Your task to perform on an android device: Empty the shopping cart on bestbuy. Add "acer predator" to the cart on bestbuy, then select checkout. Image 0: 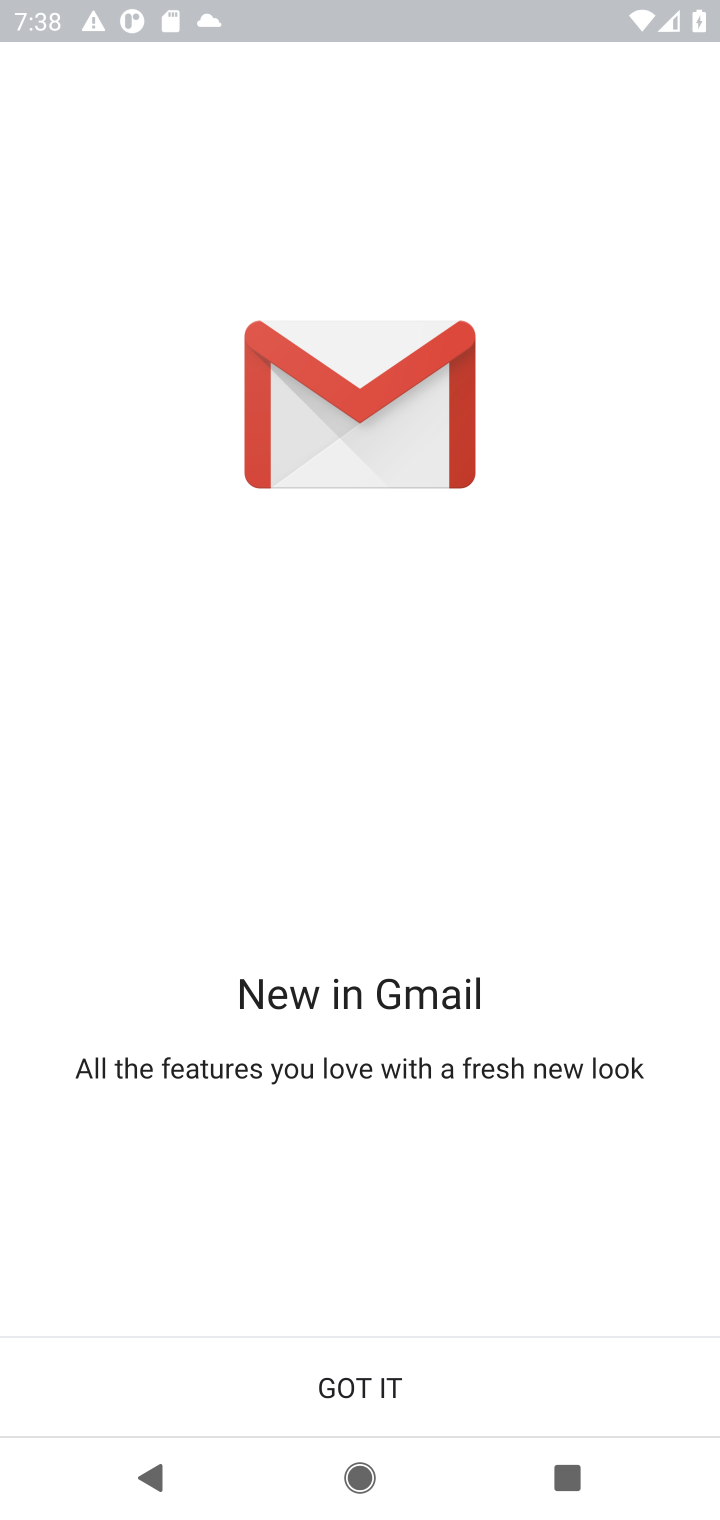
Step 0: press home button
Your task to perform on an android device: Empty the shopping cart on bestbuy. Add "acer predator" to the cart on bestbuy, then select checkout. Image 1: 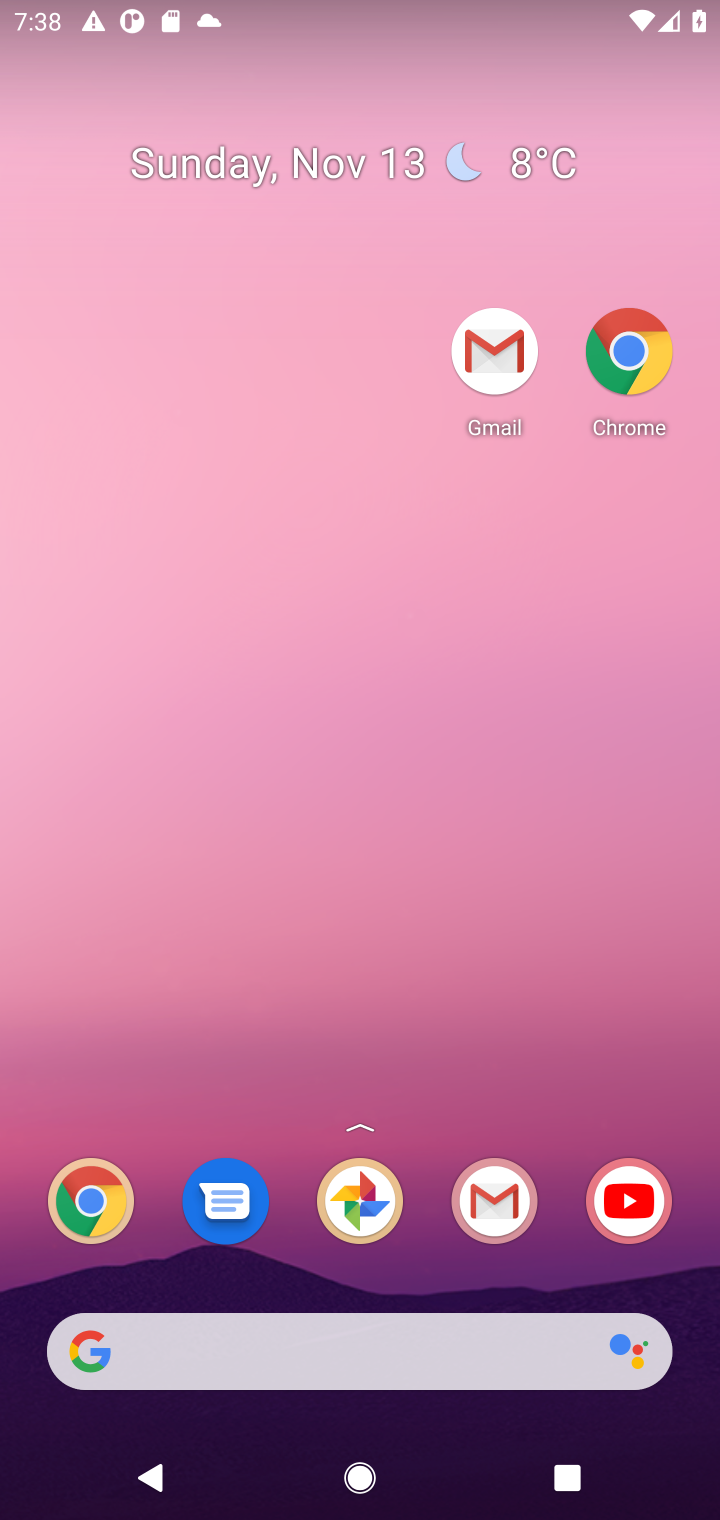
Step 1: drag from (428, 988) to (324, 15)
Your task to perform on an android device: Empty the shopping cart on bestbuy. Add "acer predator" to the cart on bestbuy, then select checkout. Image 2: 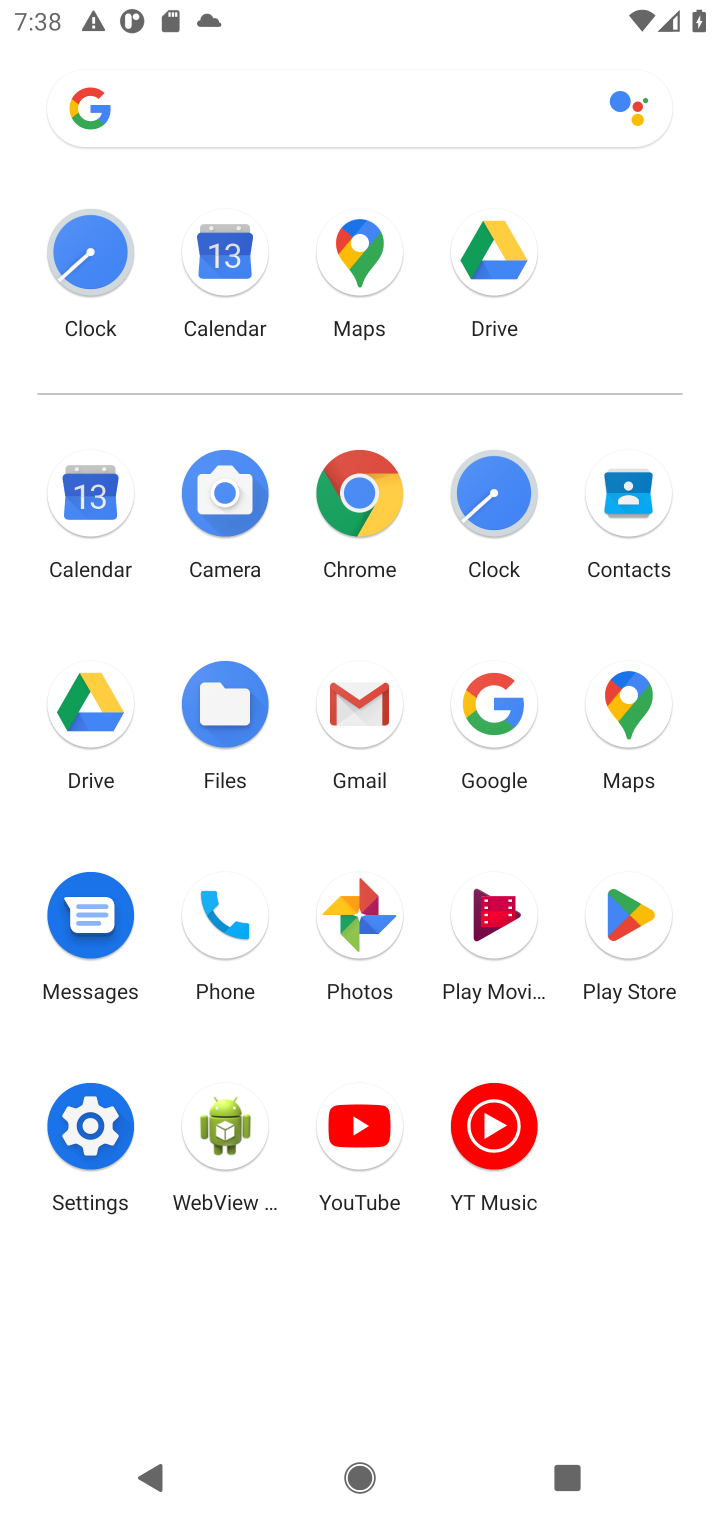
Step 2: click (348, 492)
Your task to perform on an android device: Empty the shopping cart on bestbuy. Add "acer predator" to the cart on bestbuy, then select checkout. Image 3: 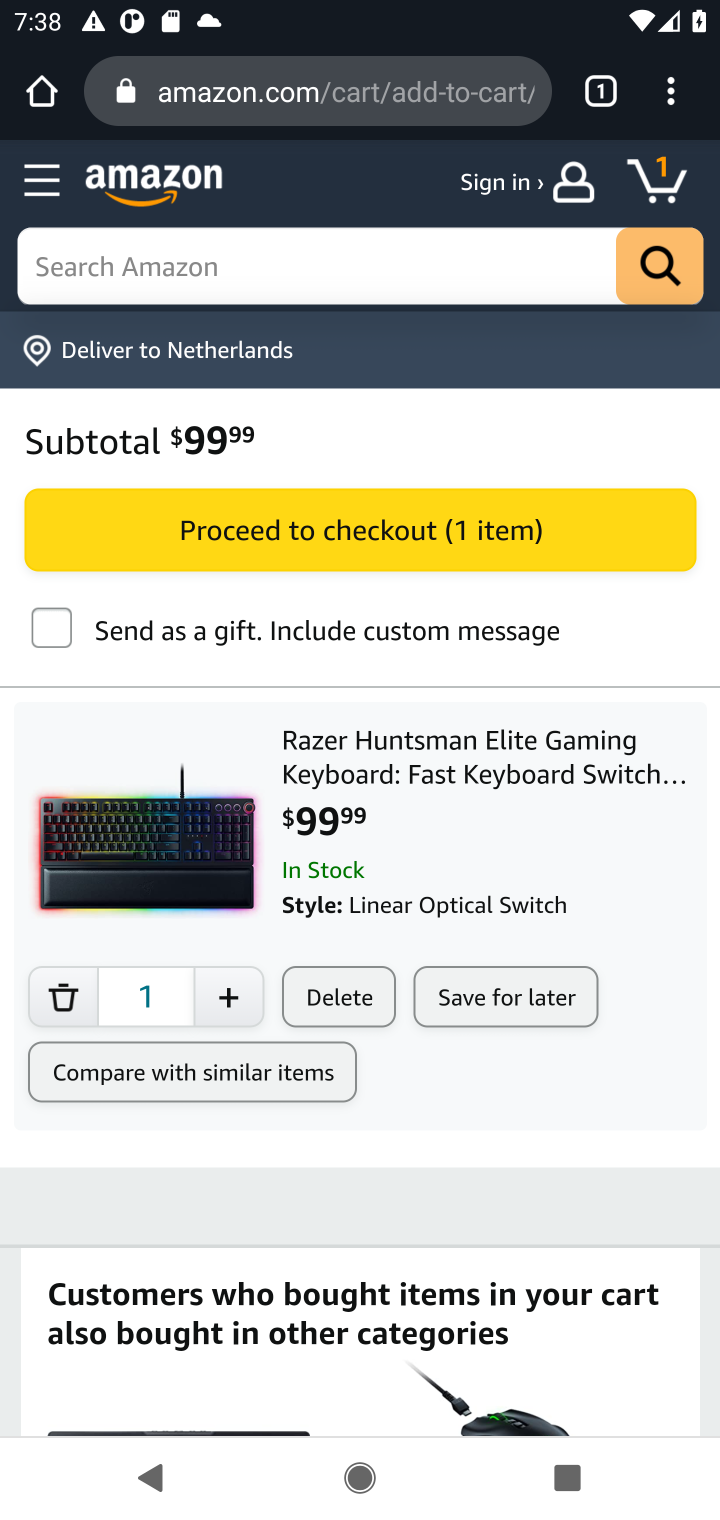
Step 3: click (387, 77)
Your task to perform on an android device: Empty the shopping cart on bestbuy. Add "acer predator" to the cart on bestbuy, then select checkout. Image 4: 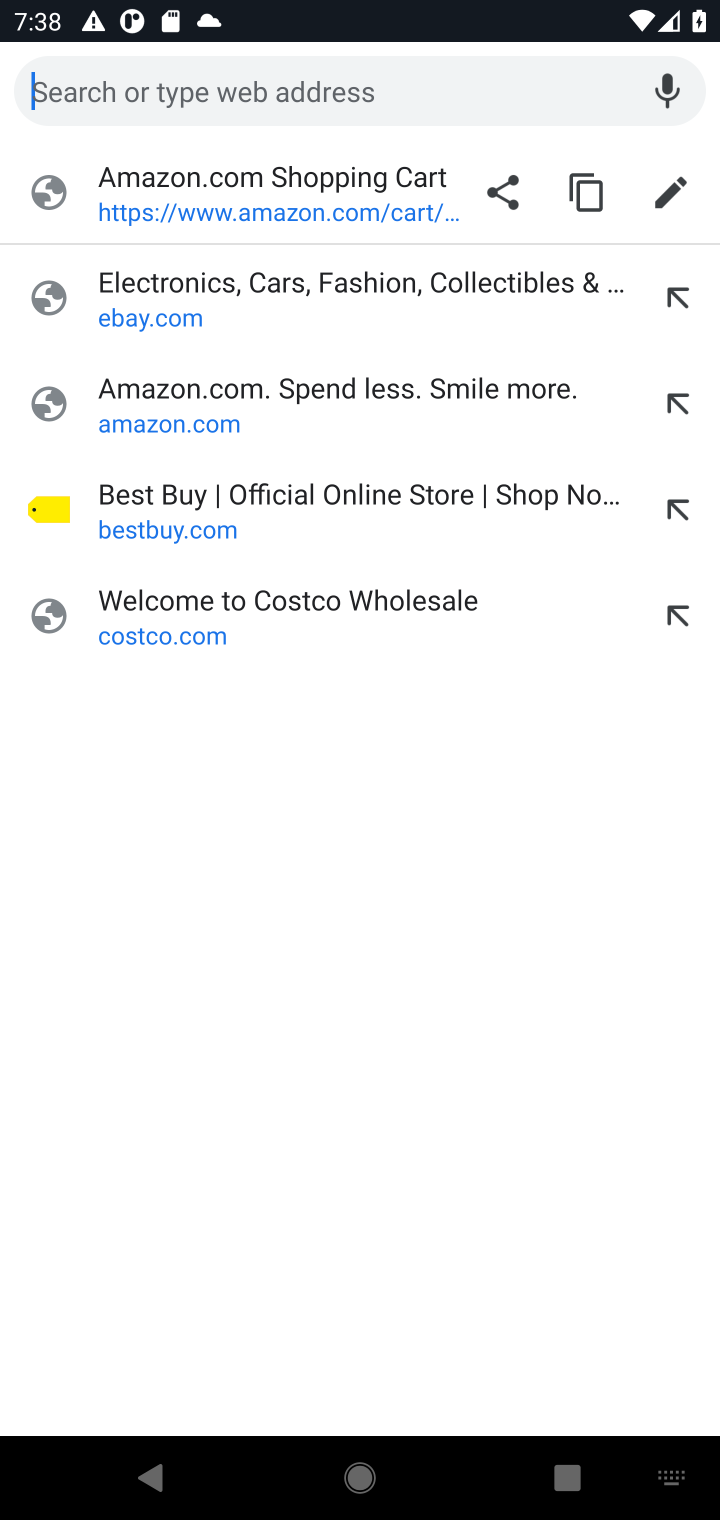
Step 4: type "bestbuy.com"
Your task to perform on an android device: Empty the shopping cart on bestbuy. Add "acer predator" to the cart on bestbuy, then select checkout. Image 5: 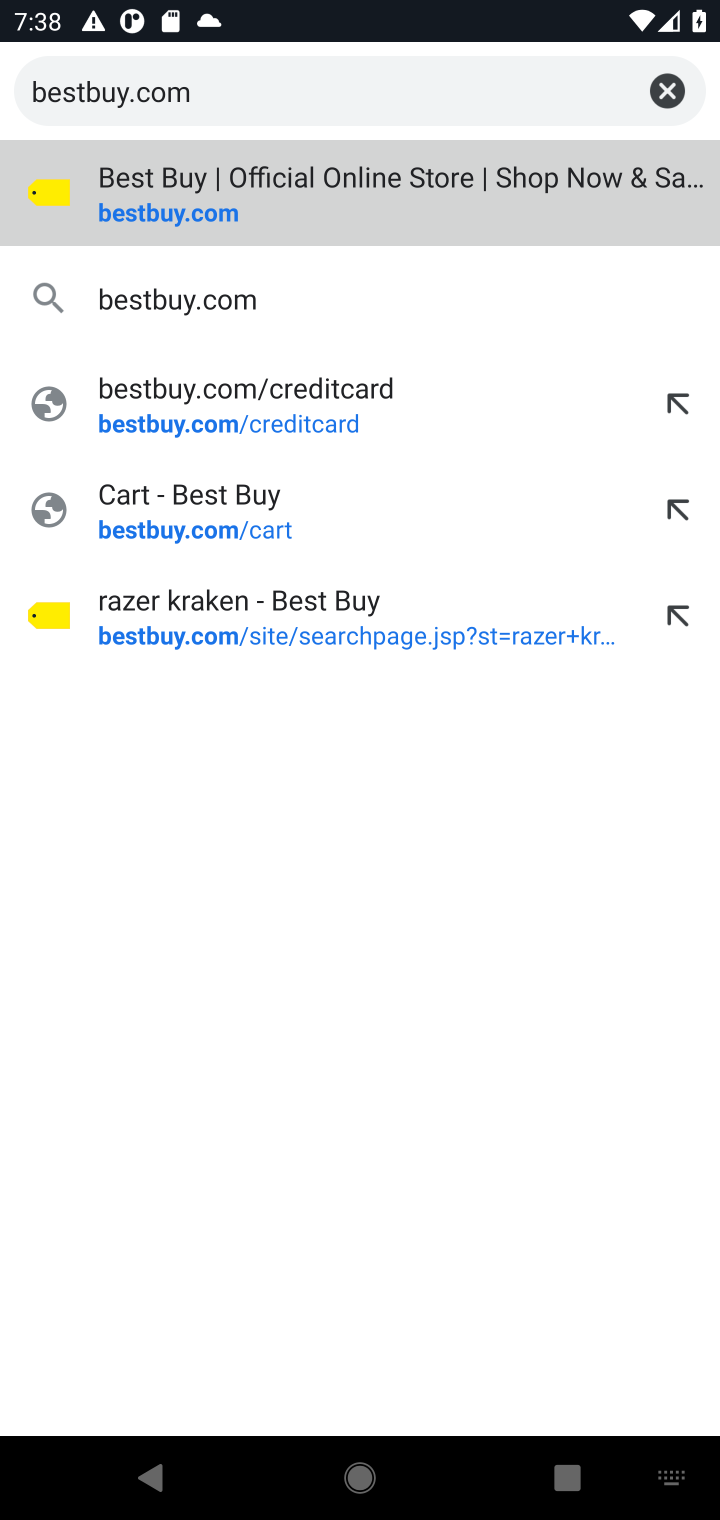
Step 5: press enter
Your task to perform on an android device: Empty the shopping cart on bestbuy. Add "acer predator" to the cart on bestbuy, then select checkout. Image 6: 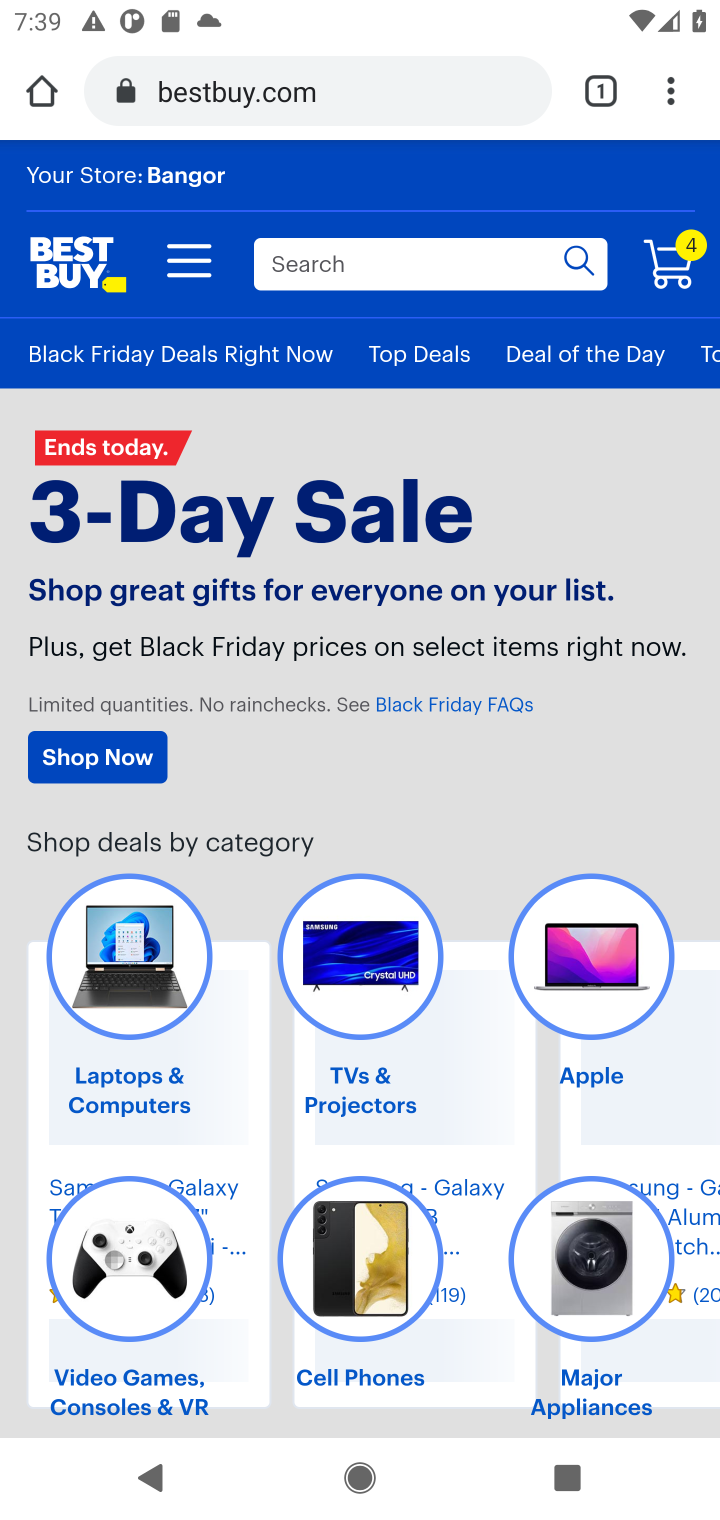
Step 6: click (674, 280)
Your task to perform on an android device: Empty the shopping cart on bestbuy. Add "acer predator" to the cart on bestbuy, then select checkout. Image 7: 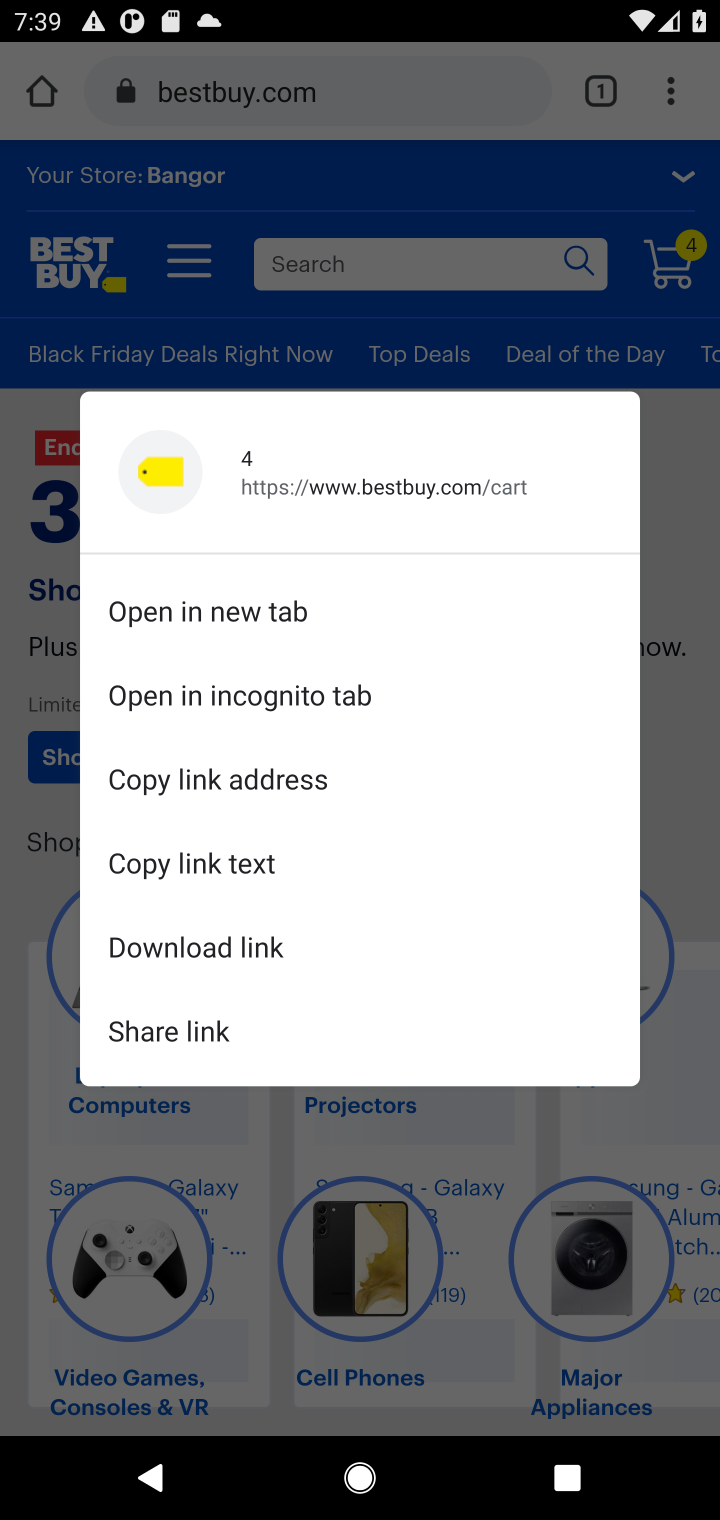
Step 7: click (675, 263)
Your task to perform on an android device: Empty the shopping cart on bestbuy. Add "acer predator" to the cart on bestbuy, then select checkout. Image 8: 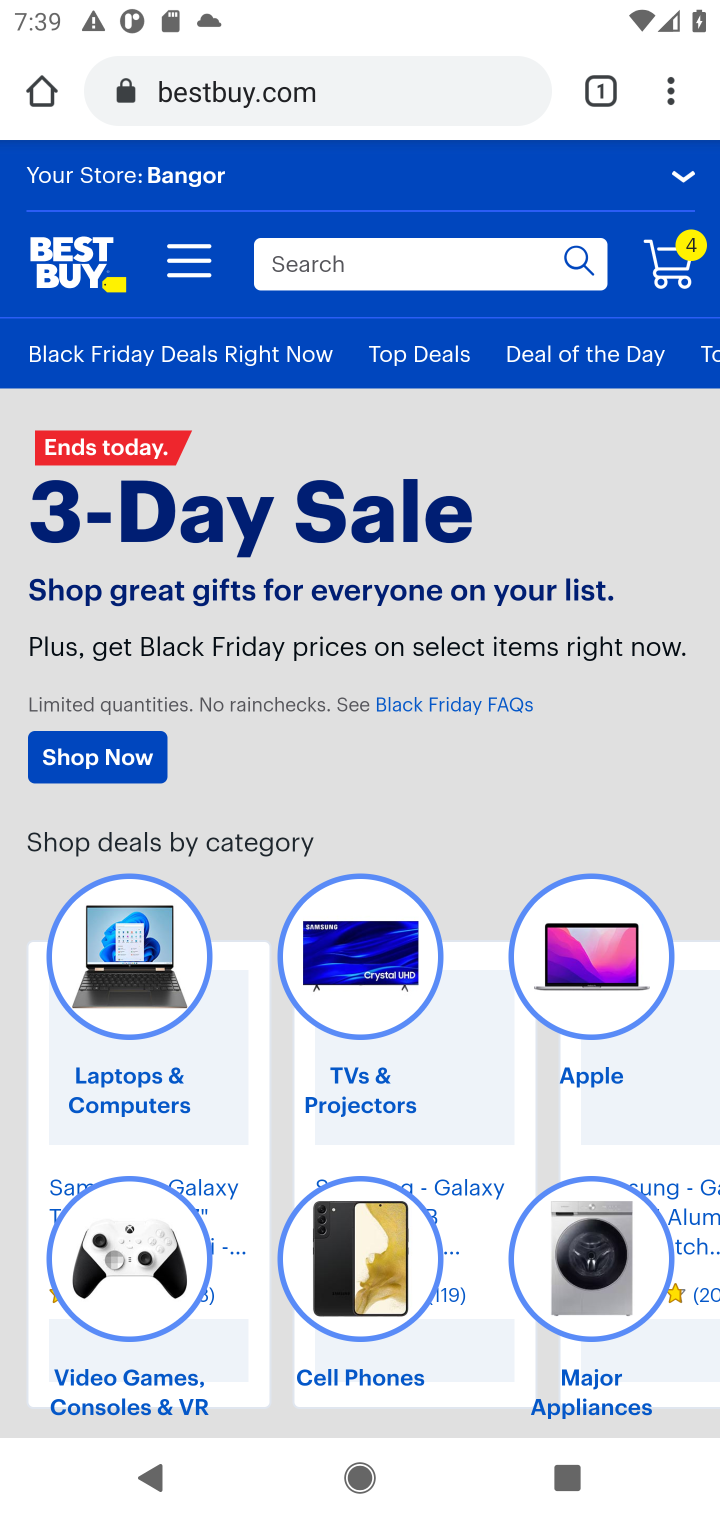
Step 8: click (670, 270)
Your task to perform on an android device: Empty the shopping cart on bestbuy. Add "acer predator" to the cart on bestbuy, then select checkout. Image 9: 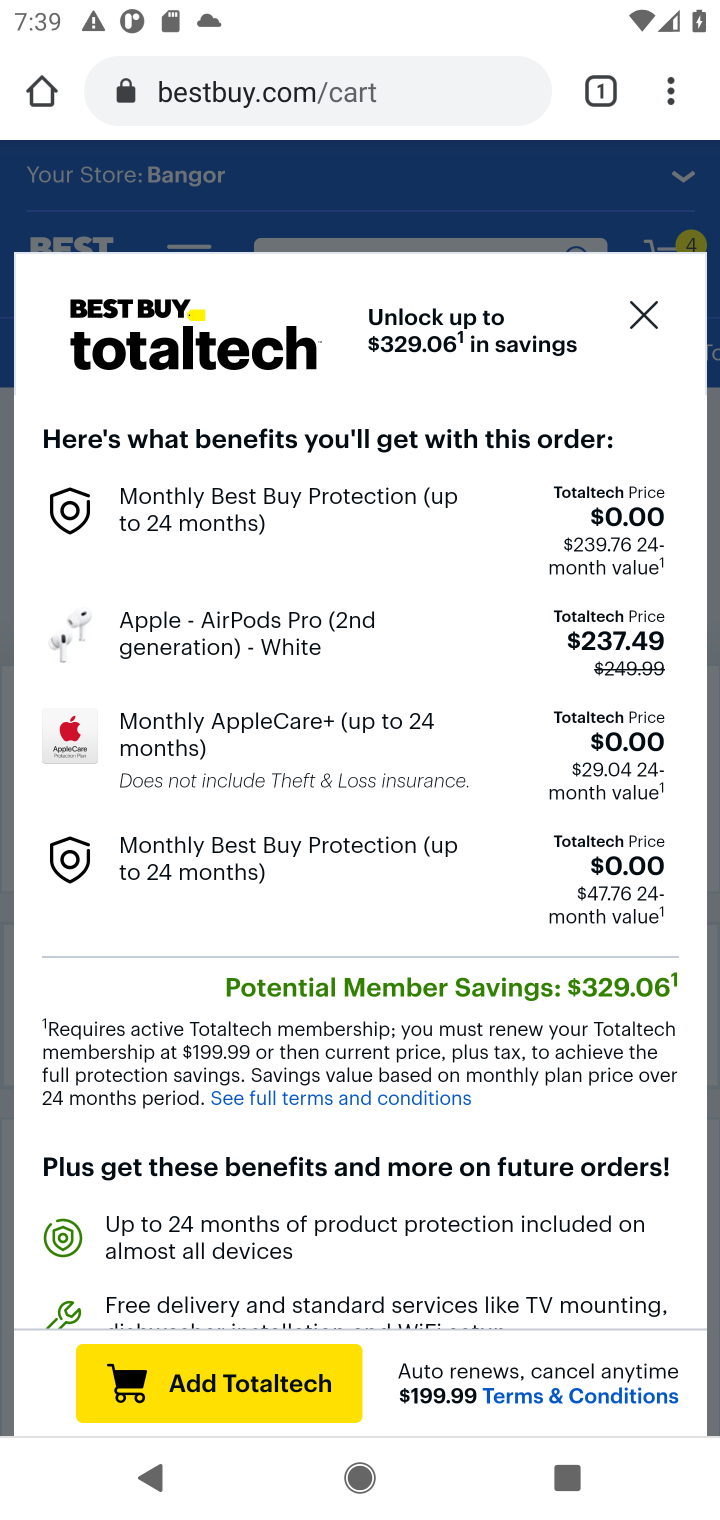
Step 9: click (632, 308)
Your task to perform on an android device: Empty the shopping cart on bestbuy. Add "acer predator" to the cart on bestbuy, then select checkout. Image 10: 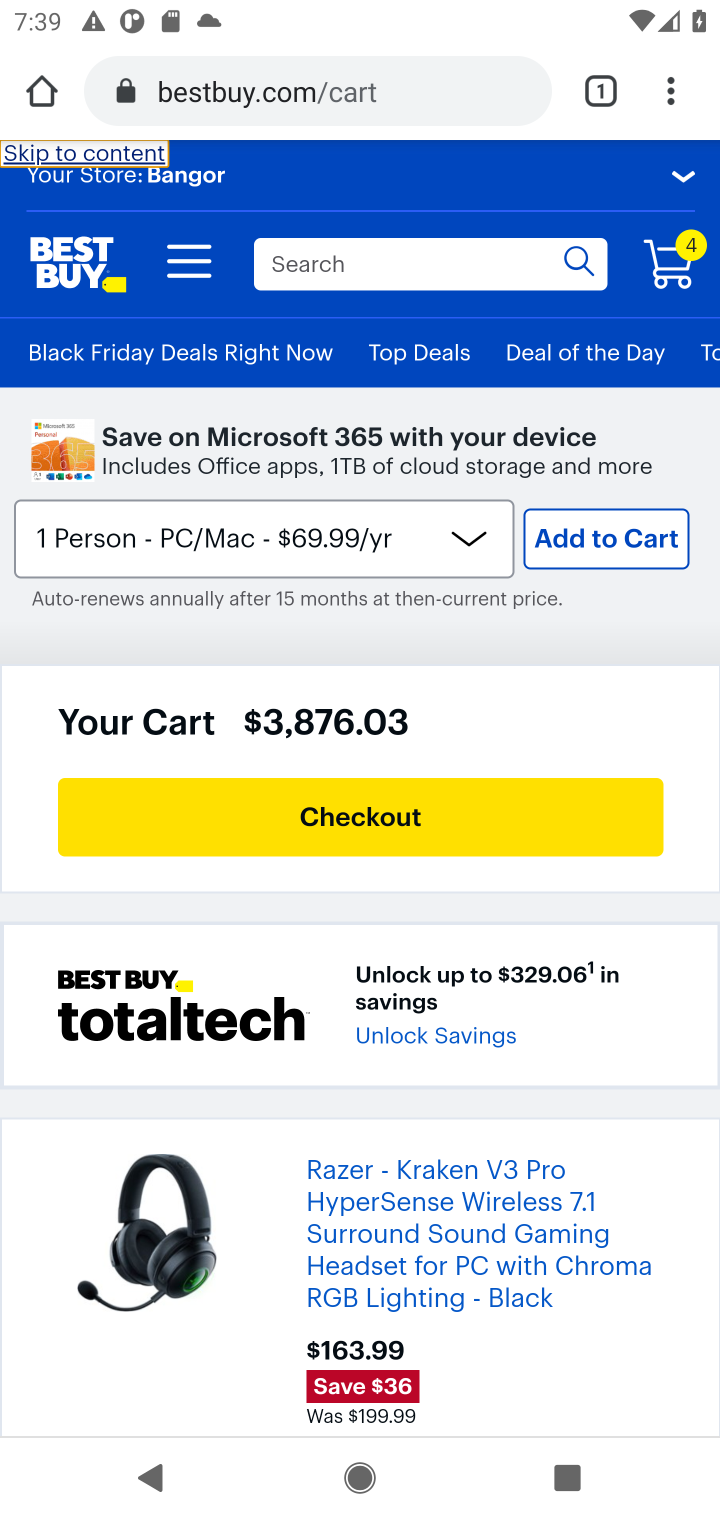
Step 10: drag from (435, 1021) to (389, 296)
Your task to perform on an android device: Empty the shopping cart on bestbuy. Add "acer predator" to the cart on bestbuy, then select checkout. Image 11: 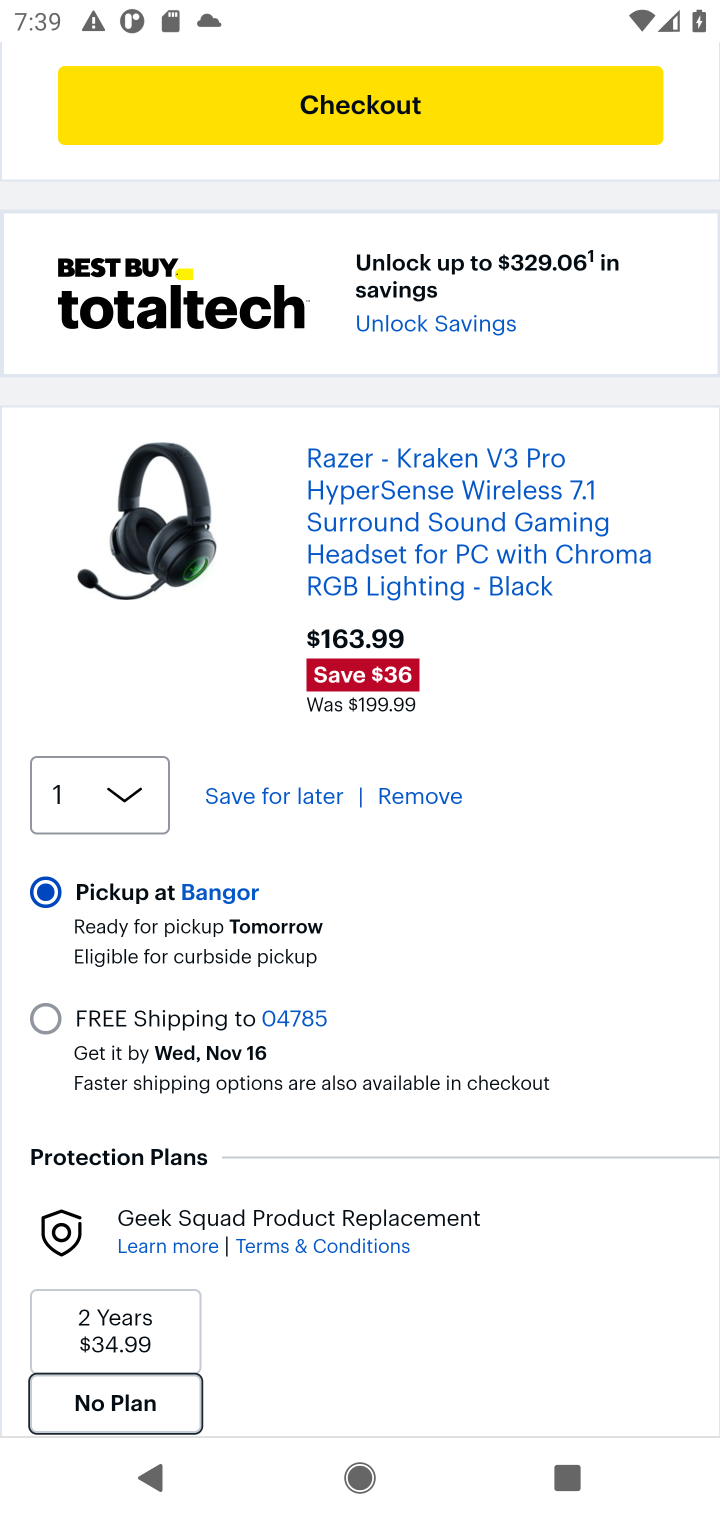
Step 11: drag from (461, 984) to (519, 278)
Your task to perform on an android device: Empty the shopping cart on bestbuy. Add "acer predator" to the cart on bestbuy, then select checkout. Image 12: 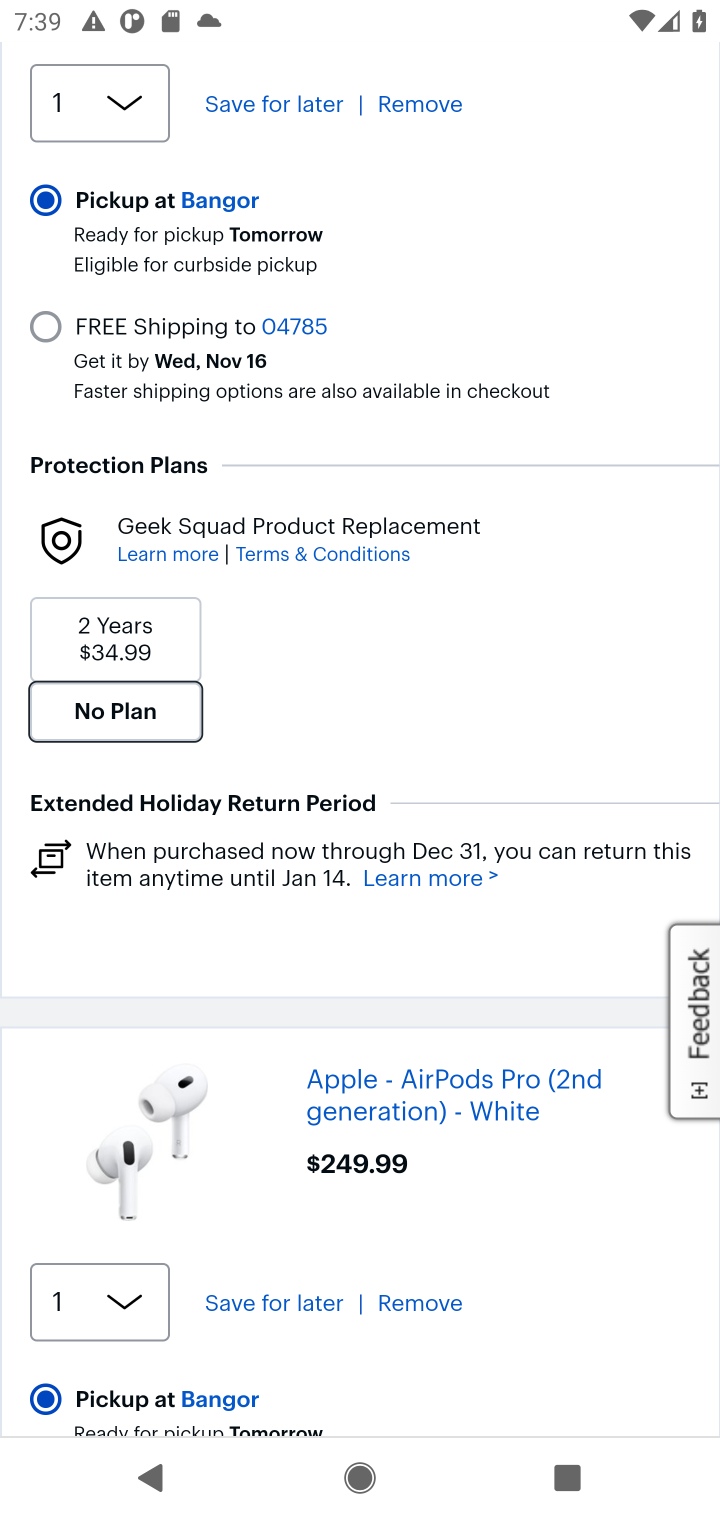
Step 12: click (406, 1300)
Your task to perform on an android device: Empty the shopping cart on bestbuy. Add "acer predator" to the cart on bestbuy, then select checkout. Image 13: 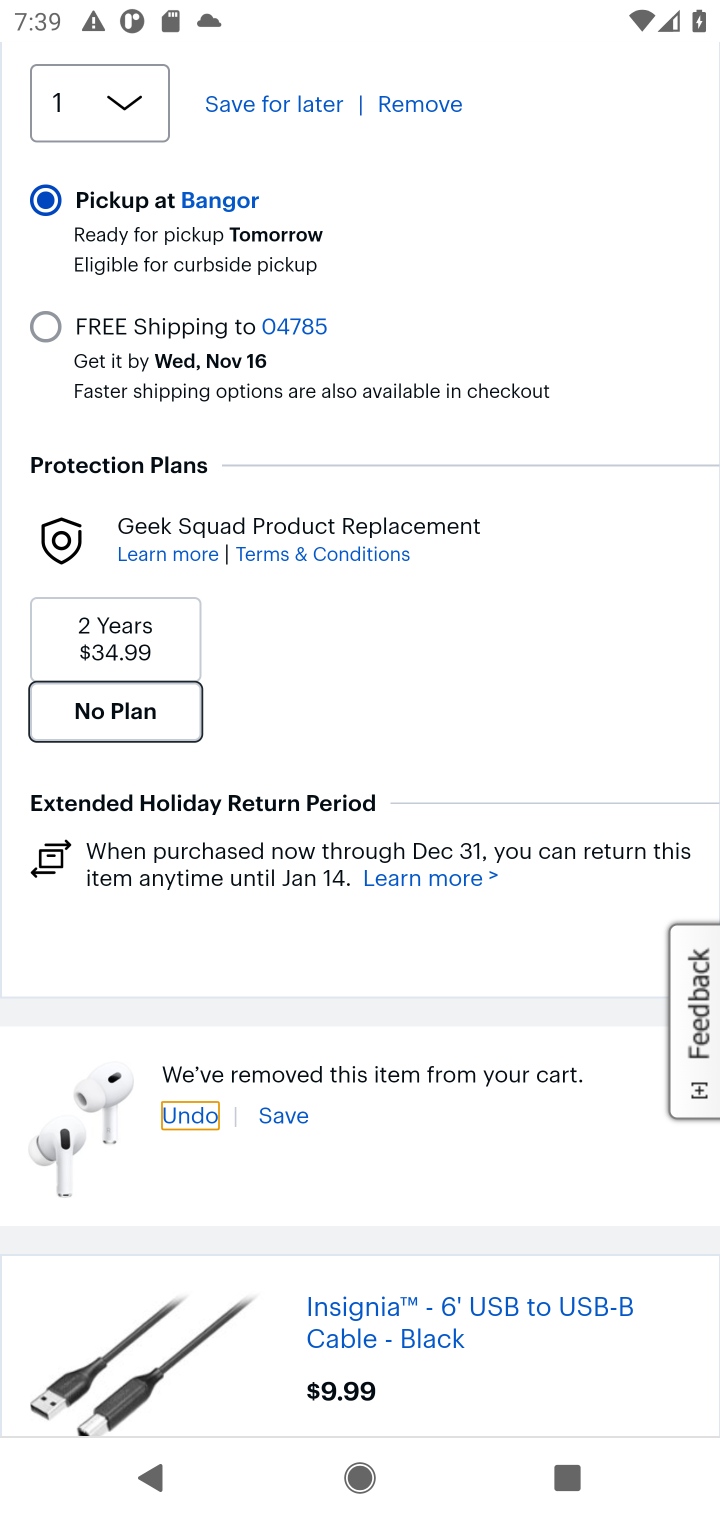
Step 13: click (432, 98)
Your task to perform on an android device: Empty the shopping cart on bestbuy. Add "acer predator" to the cart on bestbuy, then select checkout. Image 14: 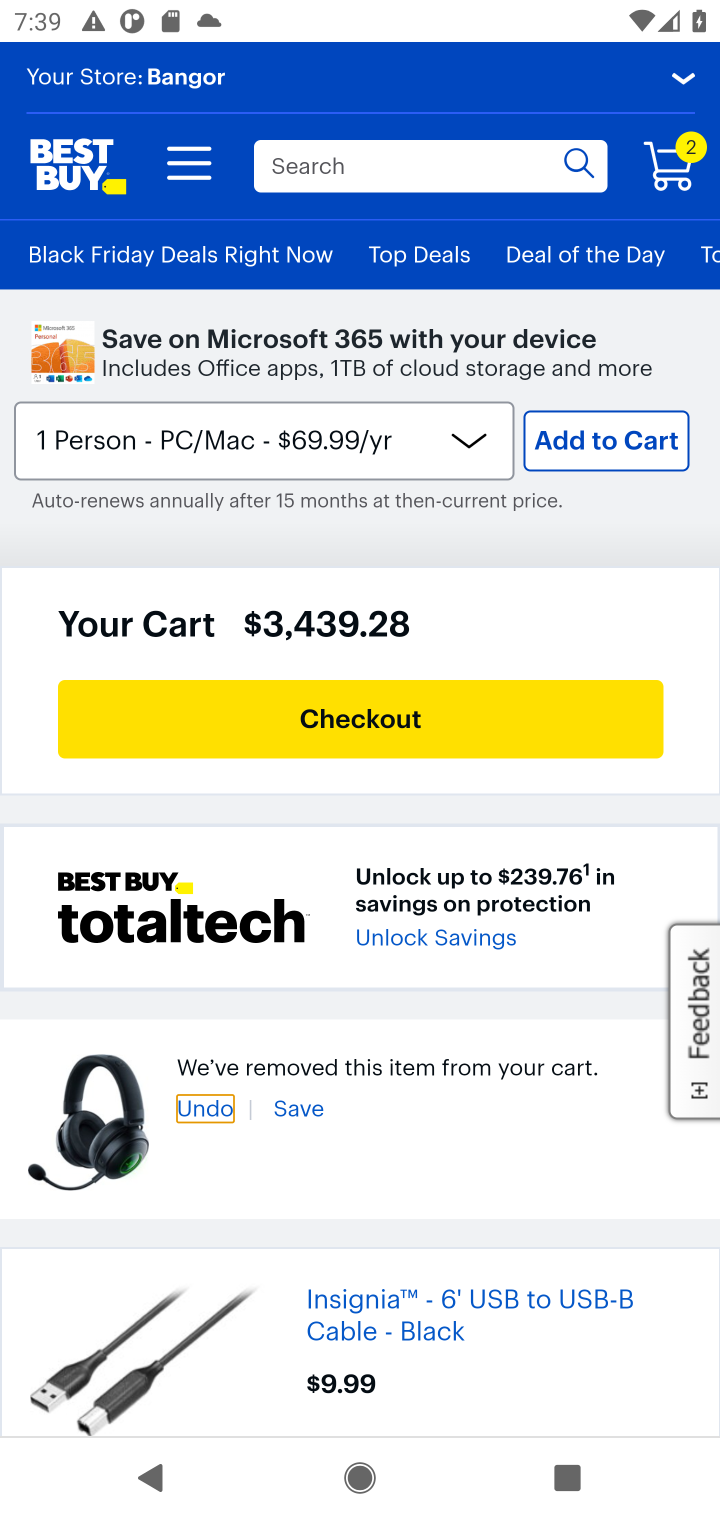
Step 14: drag from (451, 1255) to (428, 691)
Your task to perform on an android device: Empty the shopping cart on bestbuy. Add "acer predator" to the cart on bestbuy, then select checkout. Image 15: 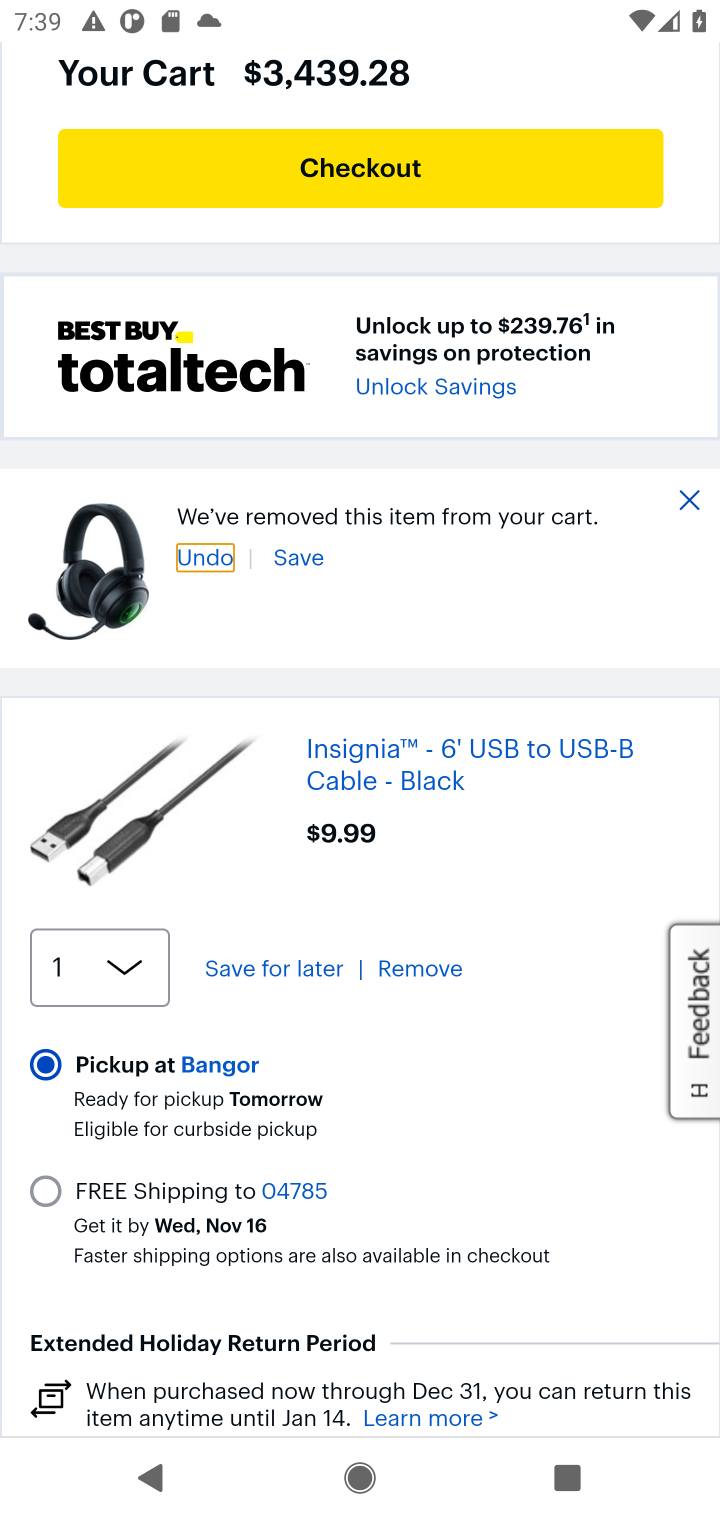
Step 15: click (426, 963)
Your task to perform on an android device: Empty the shopping cart on bestbuy. Add "acer predator" to the cart on bestbuy, then select checkout. Image 16: 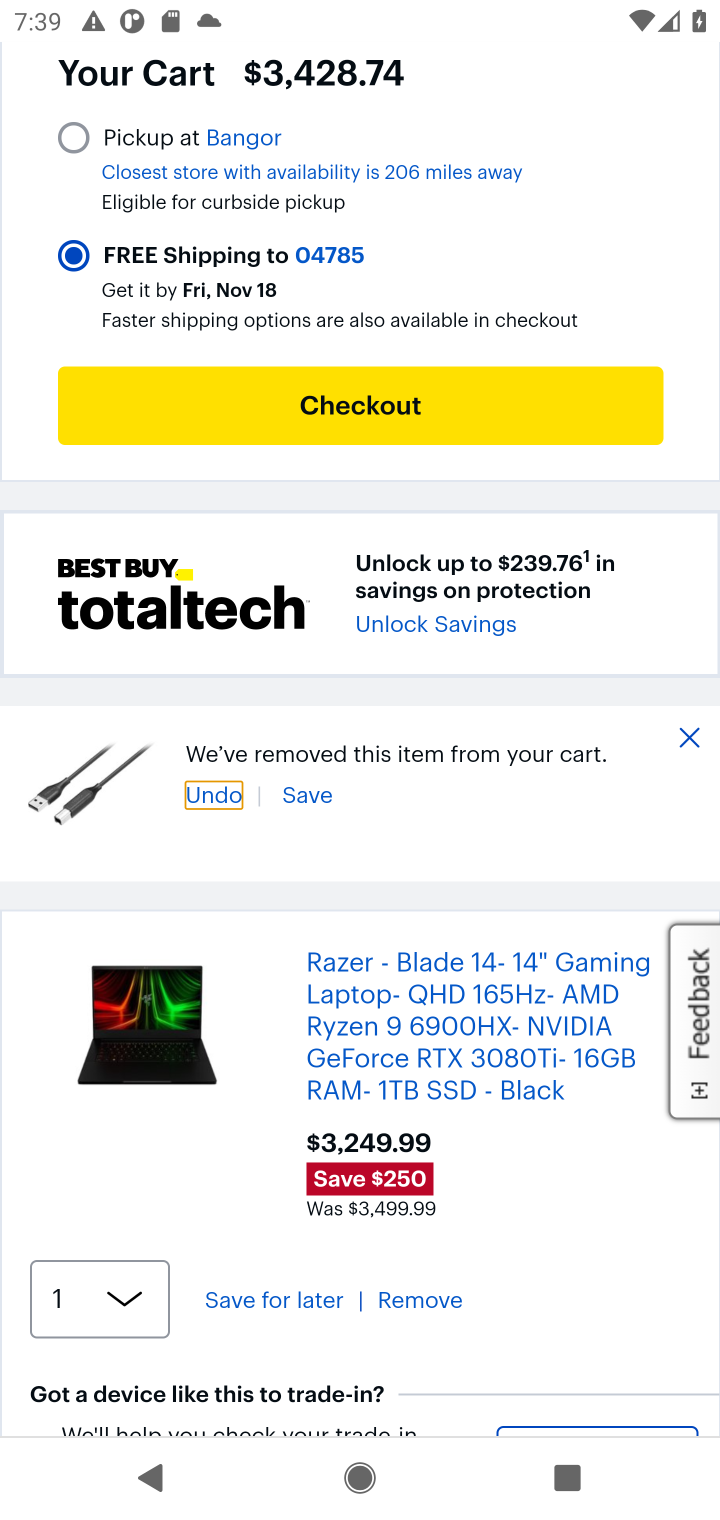
Step 16: click (421, 1299)
Your task to perform on an android device: Empty the shopping cart on bestbuy. Add "acer predator" to the cart on bestbuy, then select checkout. Image 17: 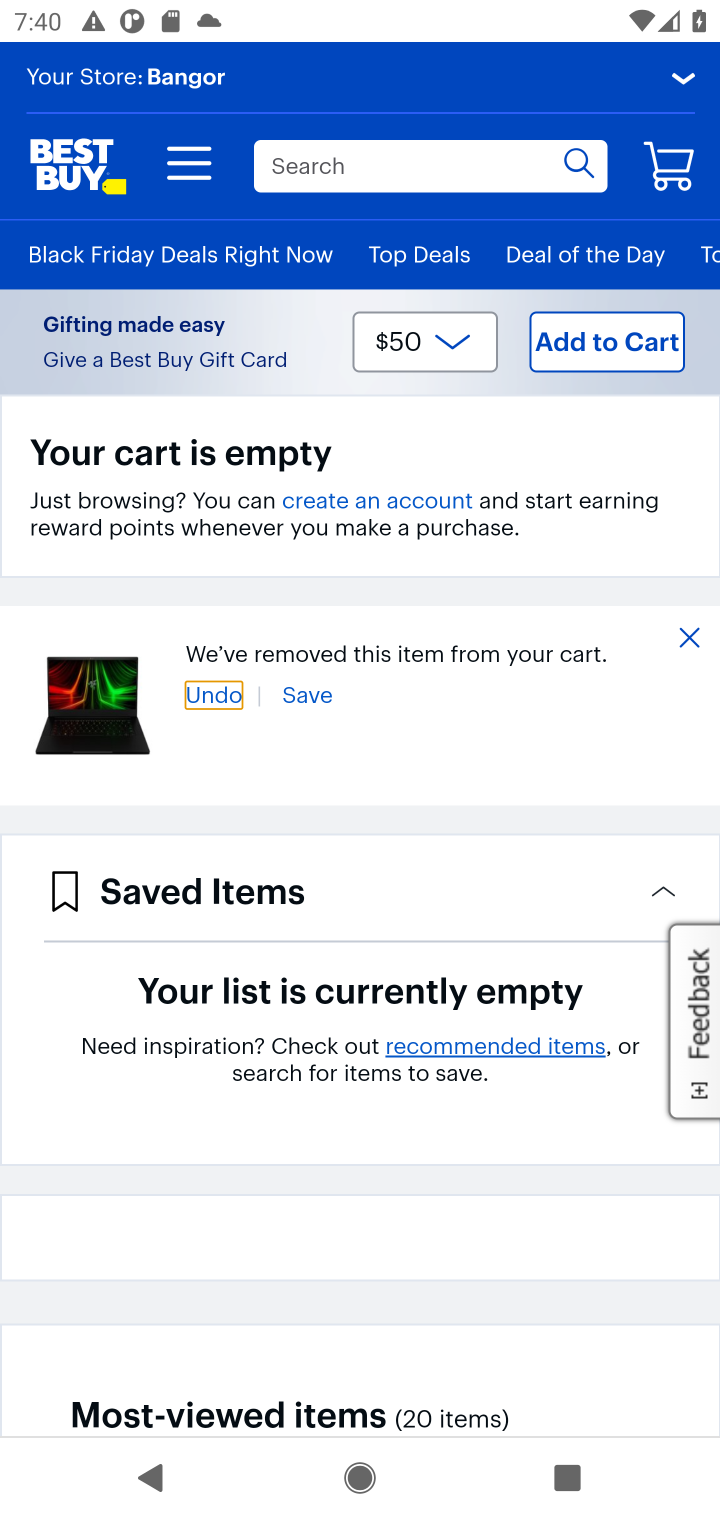
Step 17: drag from (345, 1160) to (344, 632)
Your task to perform on an android device: Empty the shopping cart on bestbuy. Add "acer predator" to the cart on bestbuy, then select checkout. Image 18: 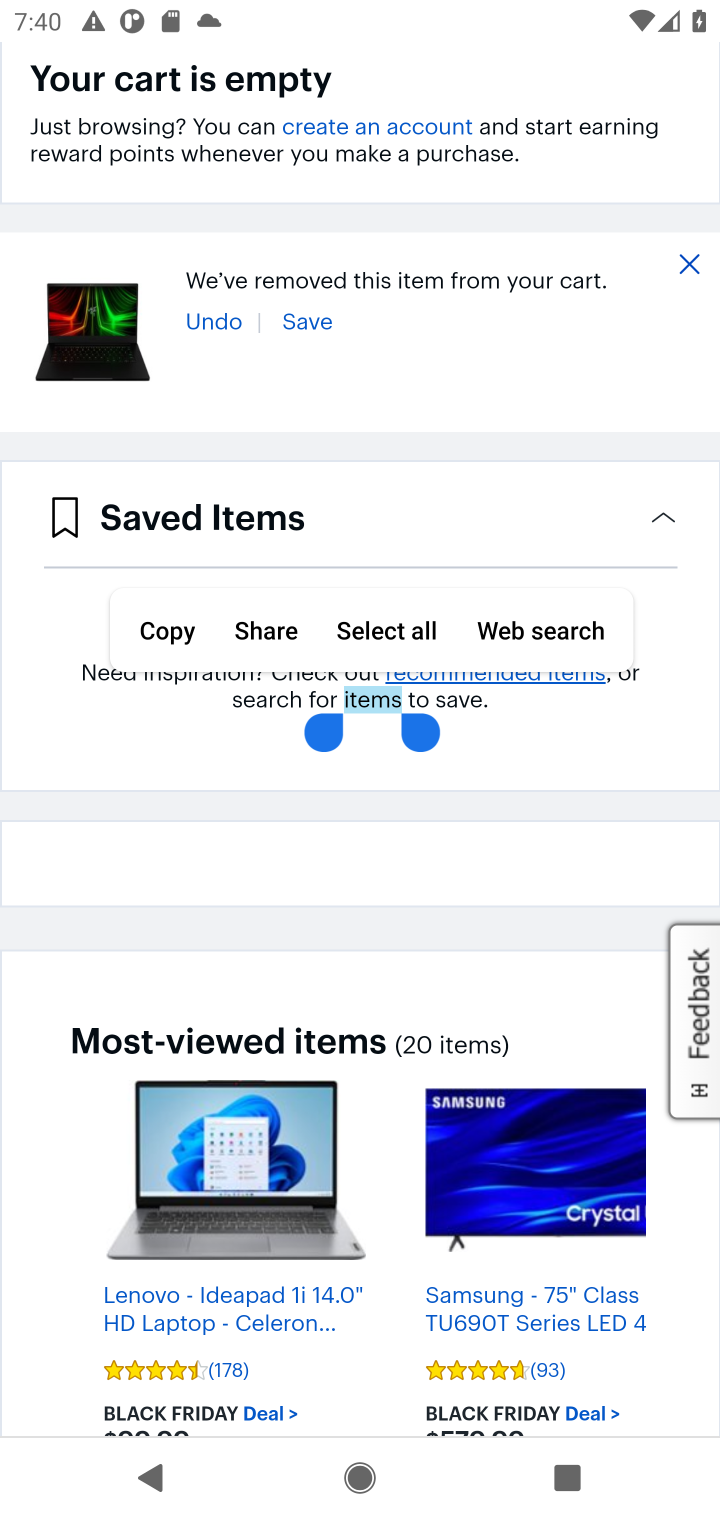
Step 18: drag from (439, 579) to (434, 1185)
Your task to perform on an android device: Empty the shopping cart on bestbuy. Add "acer predator" to the cart on bestbuy, then select checkout. Image 19: 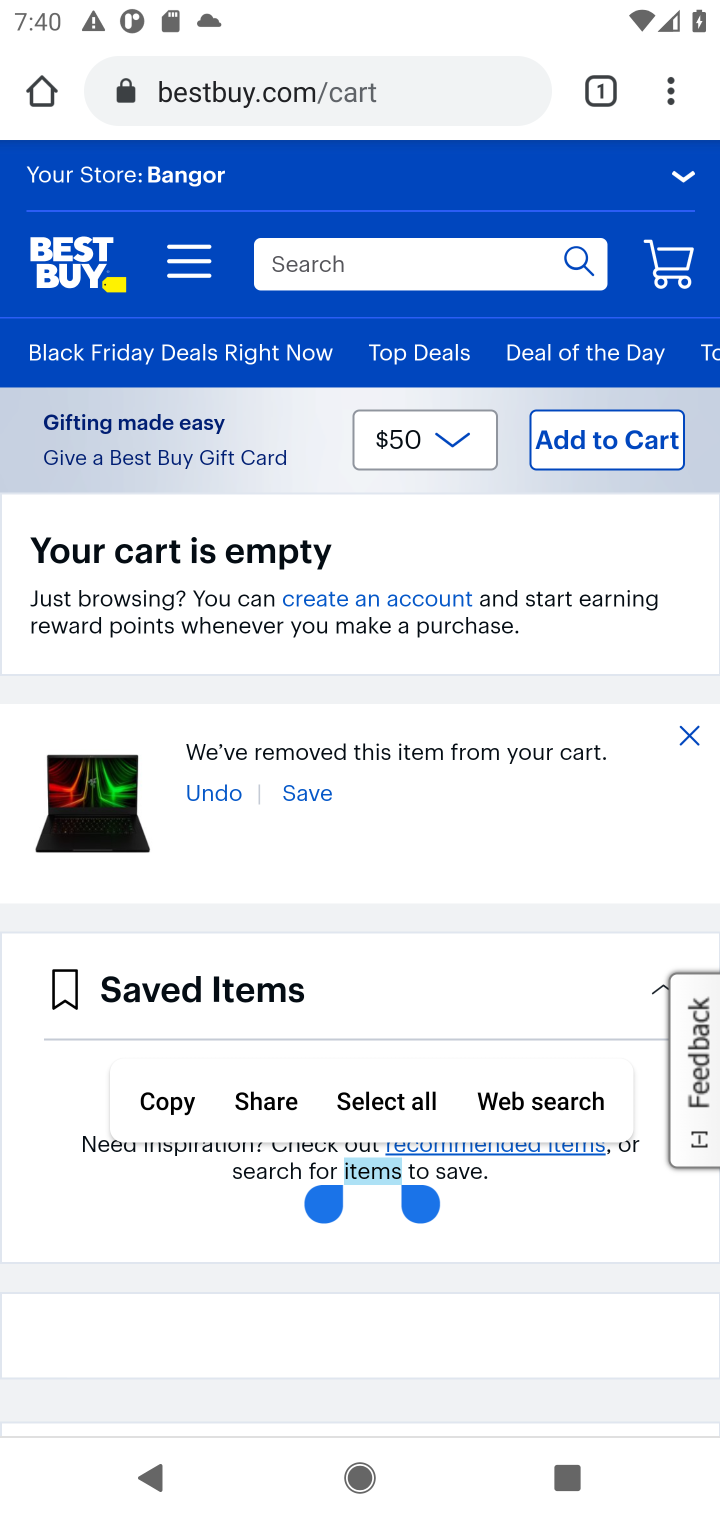
Step 19: click (411, 278)
Your task to perform on an android device: Empty the shopping cart on bestbuy. Add "acer predator" to the cart on bestbuy, then select checkout. Image 20: 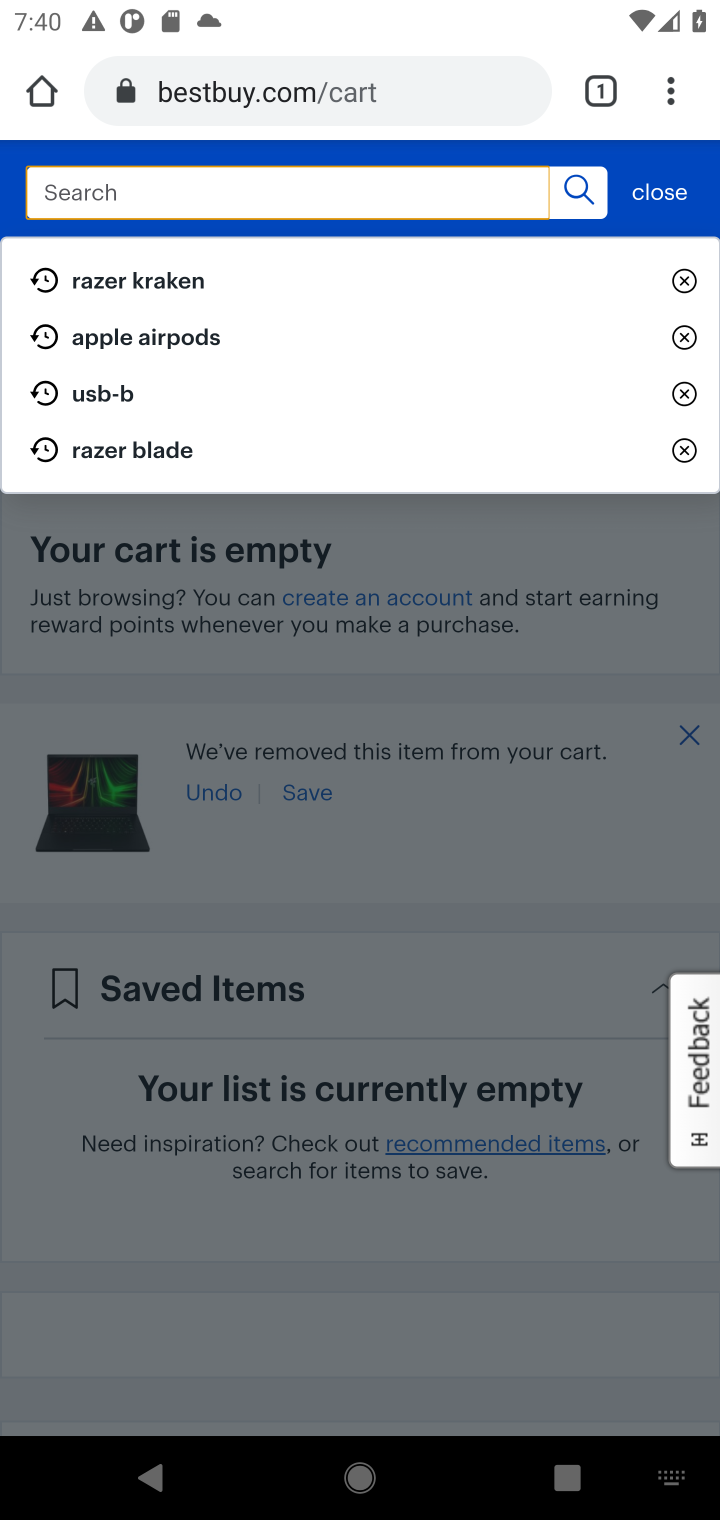
Step 20: type "acer predator"
Your task to perform on an android device: Empty the shopping cart on bestbuy. Add "acer predator" to the cart on bestbuy, then select checkout. Image 21: 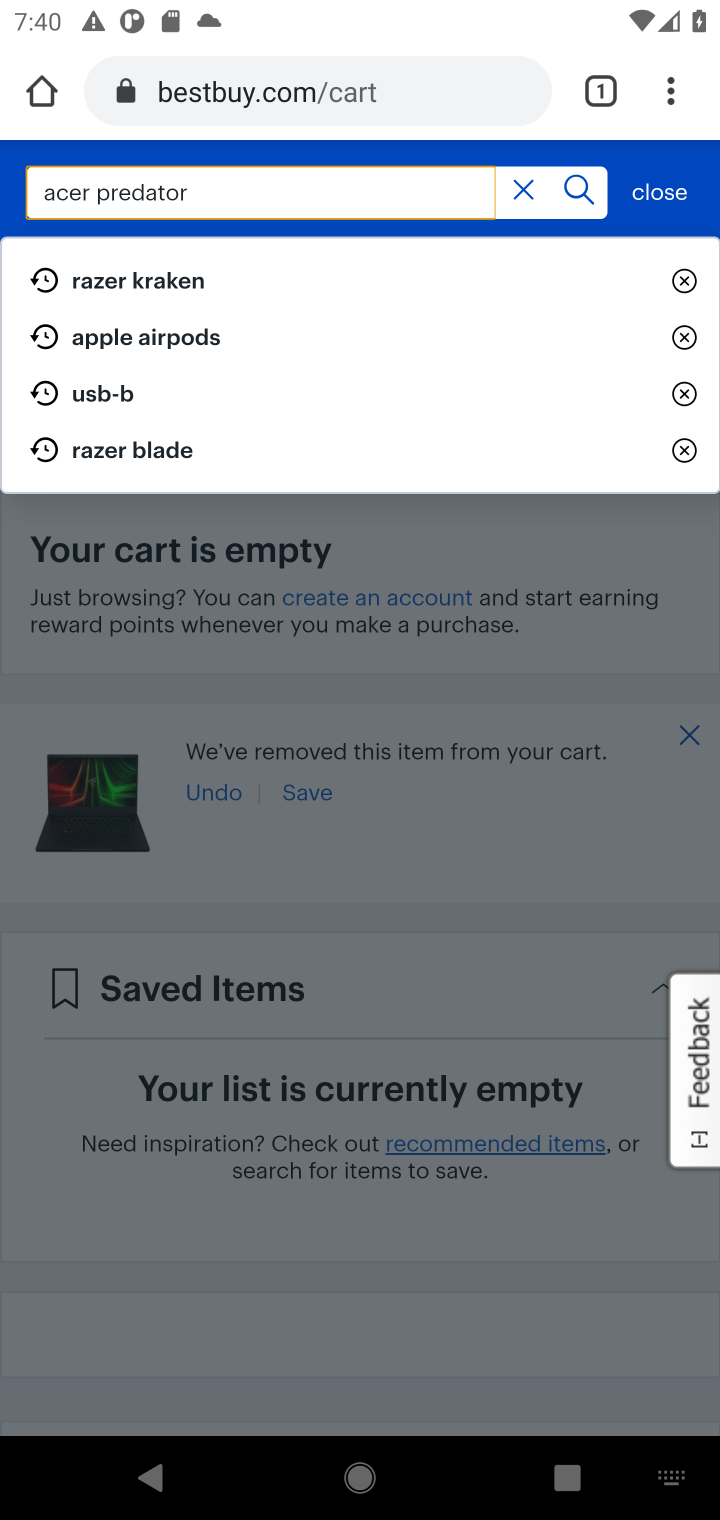
Step 21: press enter
Your task to perform on an android device: Empty the shopping cart on bestbuy. Add "acer predator" to the cart on bestbuy, then select checkout. Image 22: 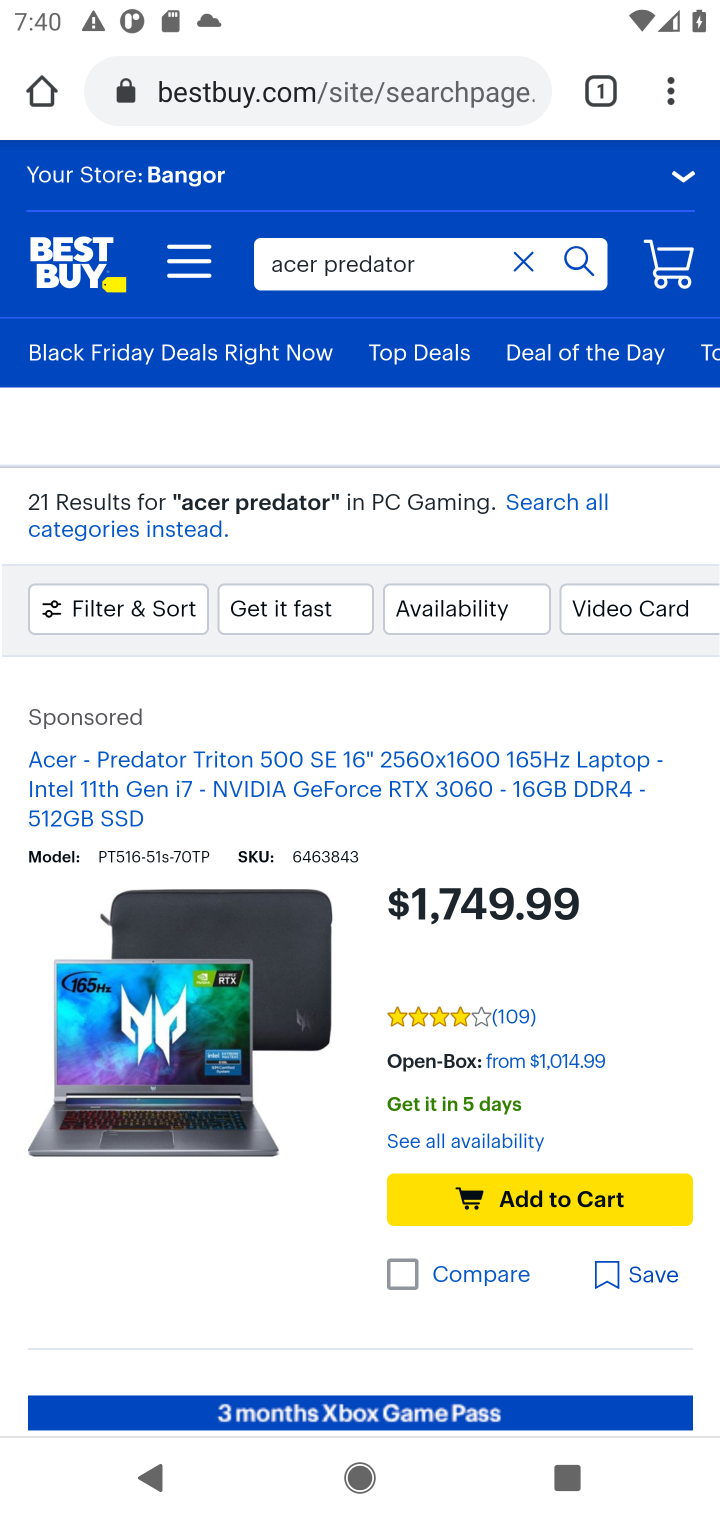
Step 22: drag from (533, 1148) to (338, 429)
Your task to perform on an android device: Empty the shopping cart on bestbuy. Add "acer predator" to the cart on bestbuy, then select checkout. Image 23: 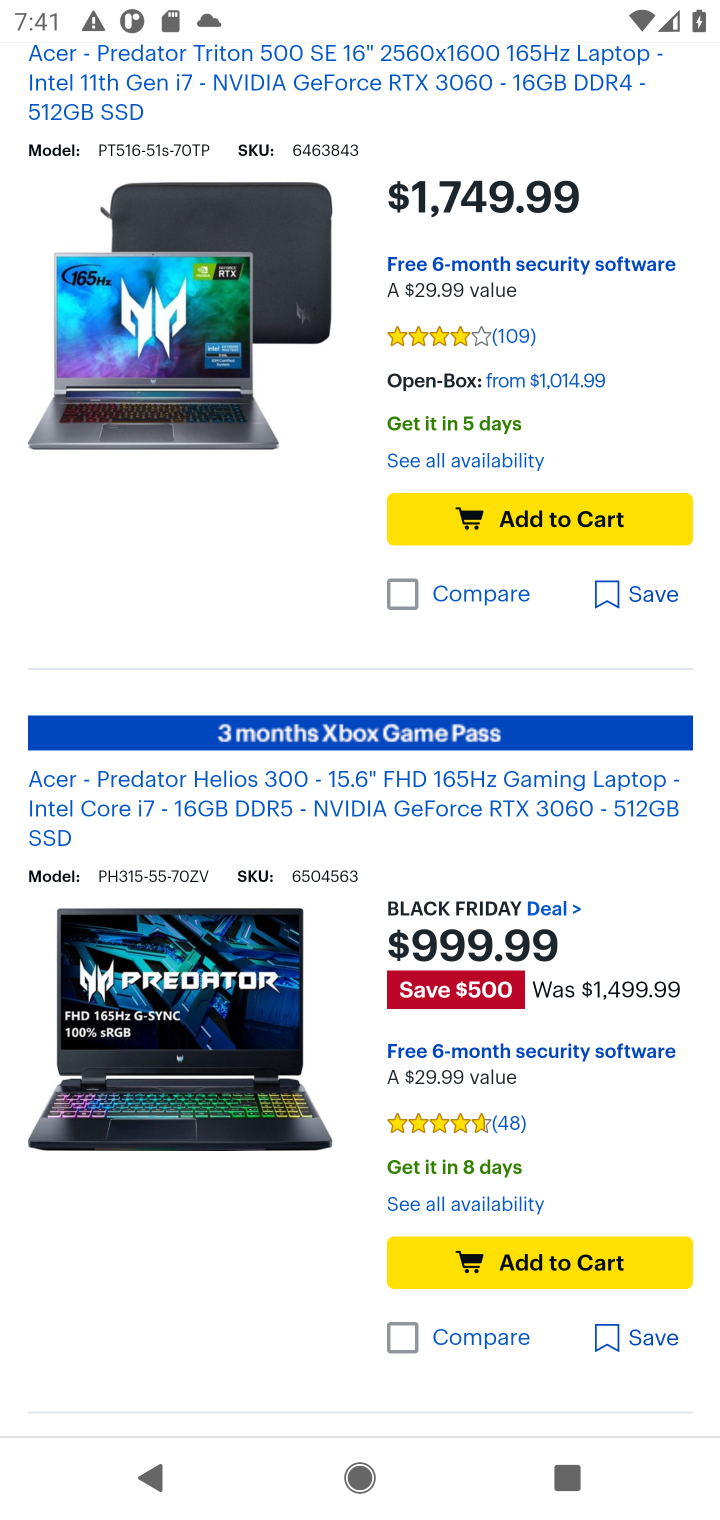
Step 23: click (620, 1257)
Your task to perform on an android device: Empty the shopping cart on bestbuy. Add "acer predator" to the cart on bestbuy, then select checkout. Image 24: 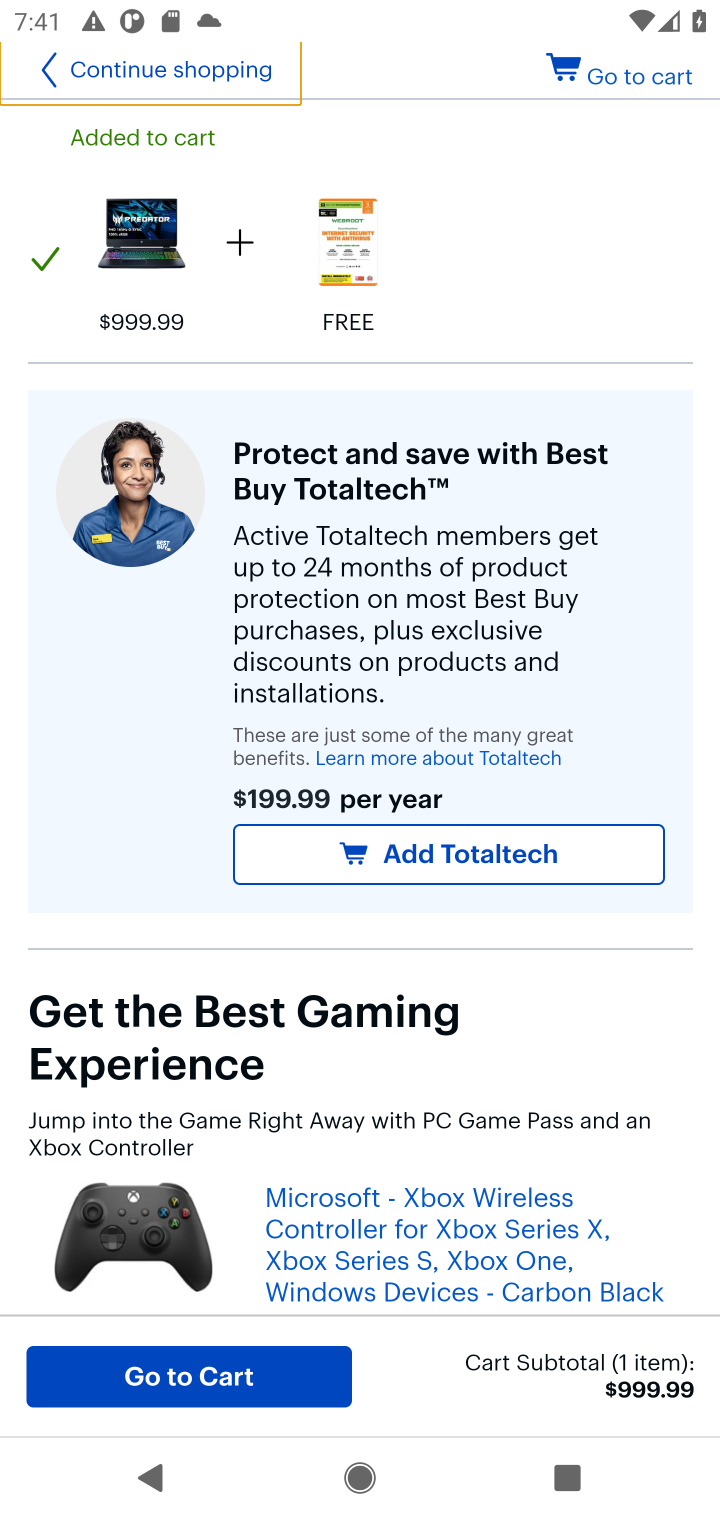
Step 24: click (206, 1370)
Your task to perform on an android device: Empty the shopping cart on bestbuy. Add "acer predator" to the cart on bestbuy, then select checkout. Image 25: 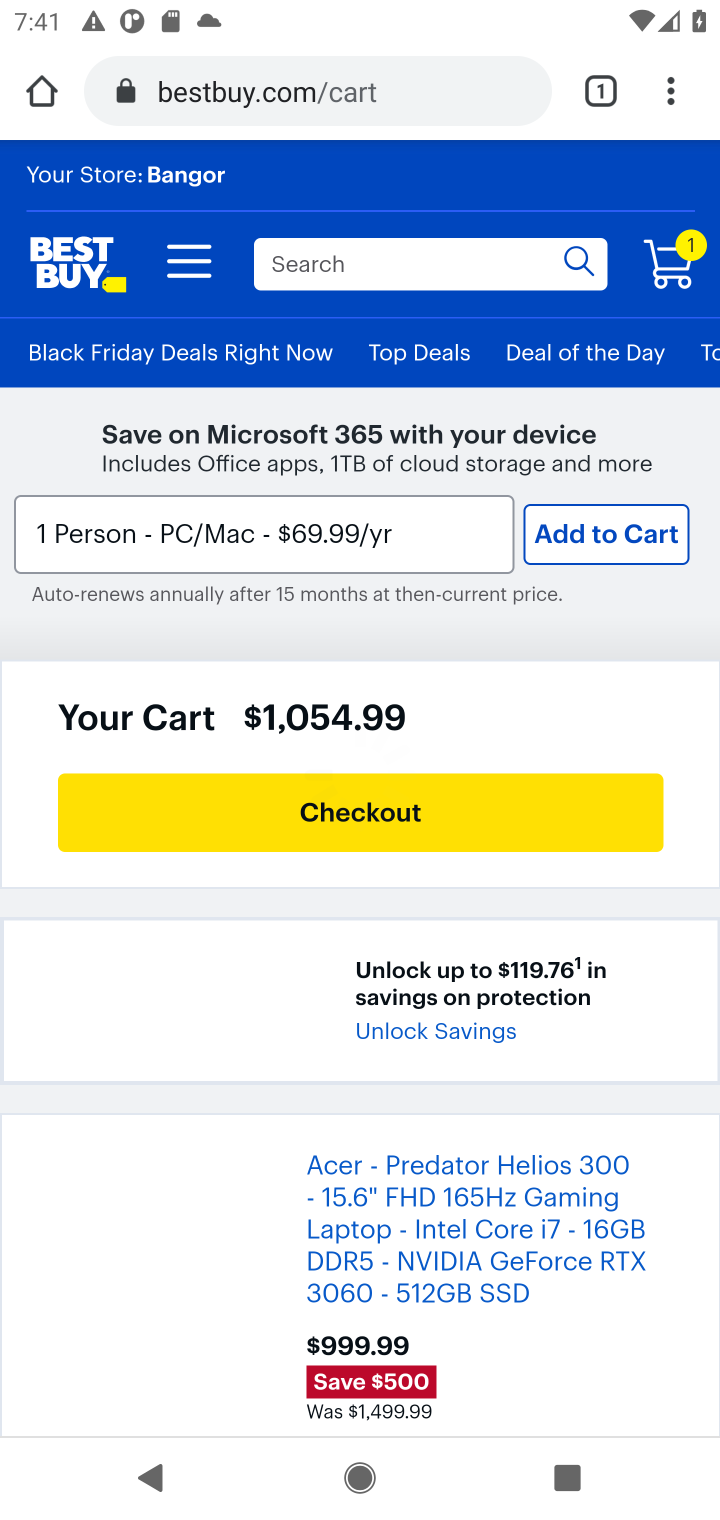
Step 25: click (519, 817)
Your task to perform on an android device: Empty the shopping cart on bestbuy. Add "acer predator" to the cart on bestbuy, then select checkout. Image 26: 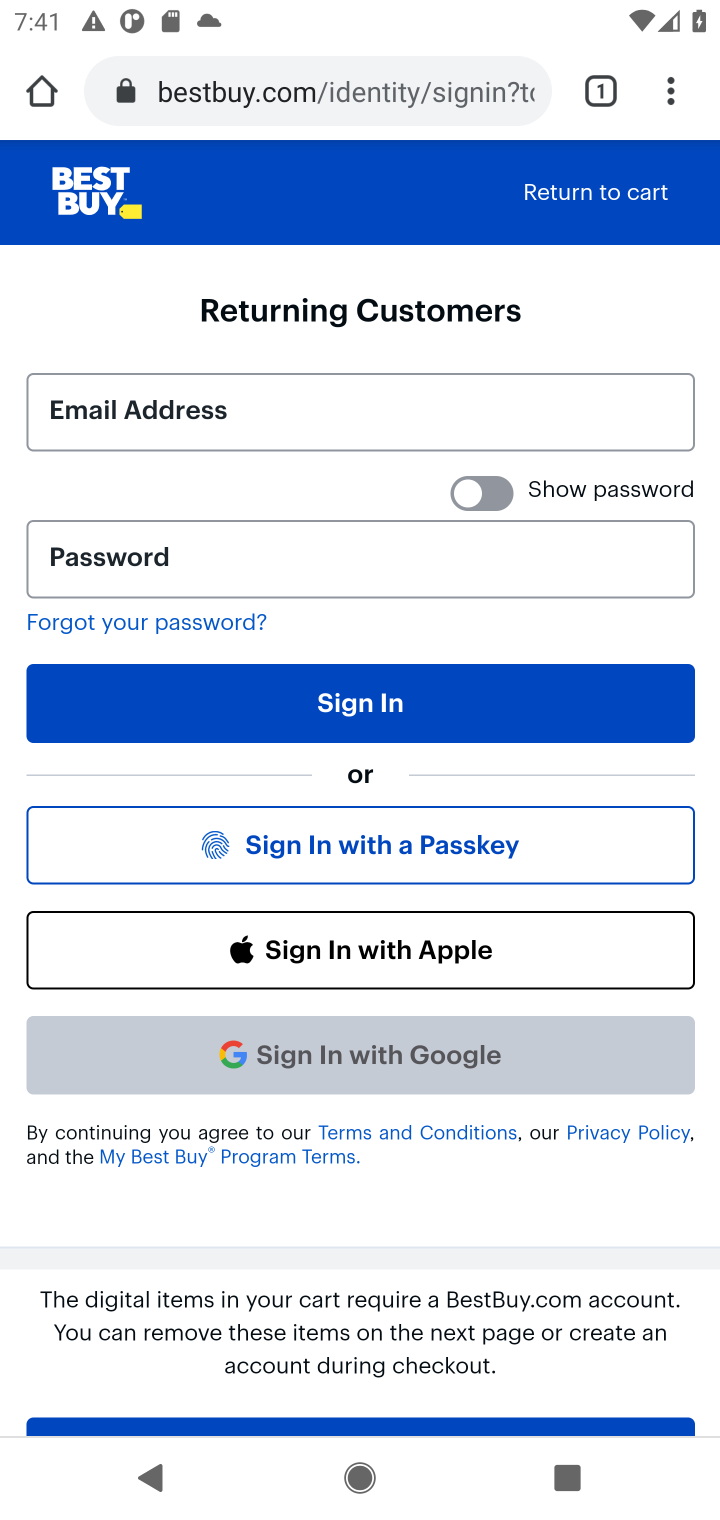
Step 26: task complete